Your task to perform on an android device: find which apps use the phone's location Image 0: 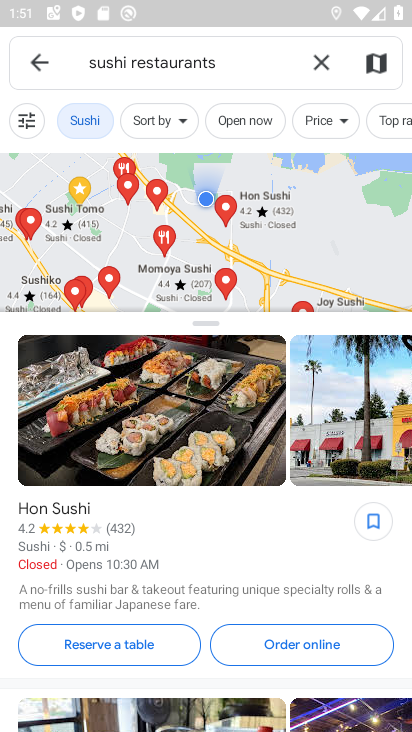
Step 0: press home button
Your task to perform on an android device: find which apps use the phone's location Image 1: 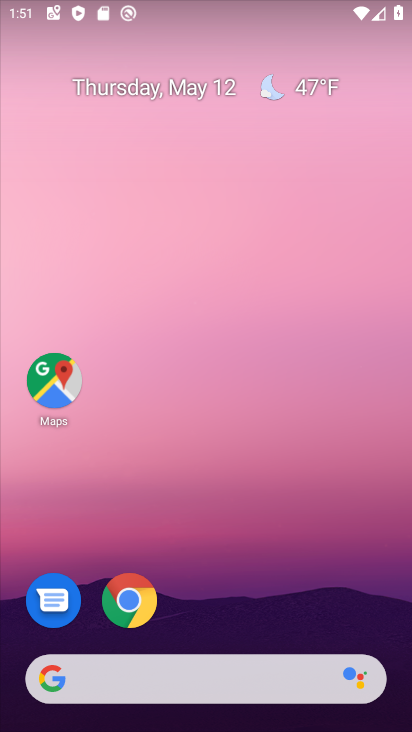
Step 1: drag from (207, 610) to (260, 53)
Your task to perform on an android device: find which apps use the phone's location Image 2: 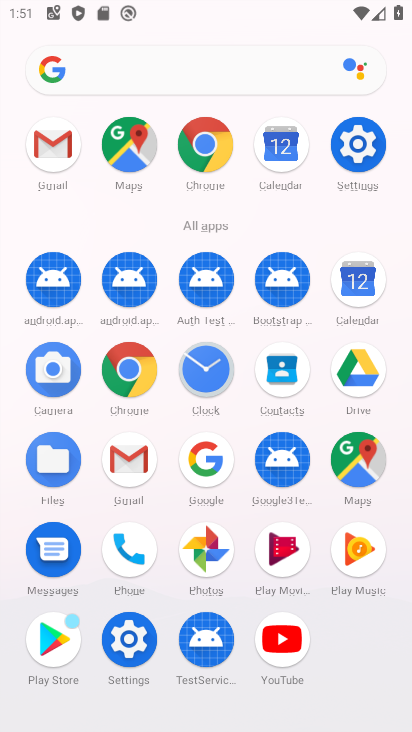
Step 2: click (353, 180)
Your task to perform on an android device: find which apps use the phone's location Image 3: 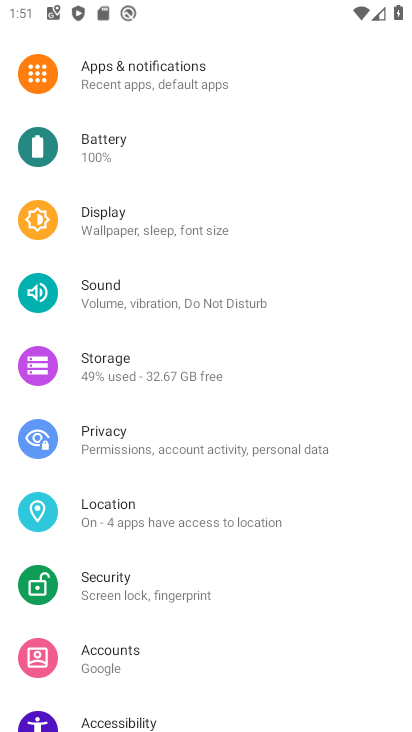
Step 3: drag from (187, 122) to (206, 555)
Your task to perform on an android device: find which apps use the phone's location Image 4: 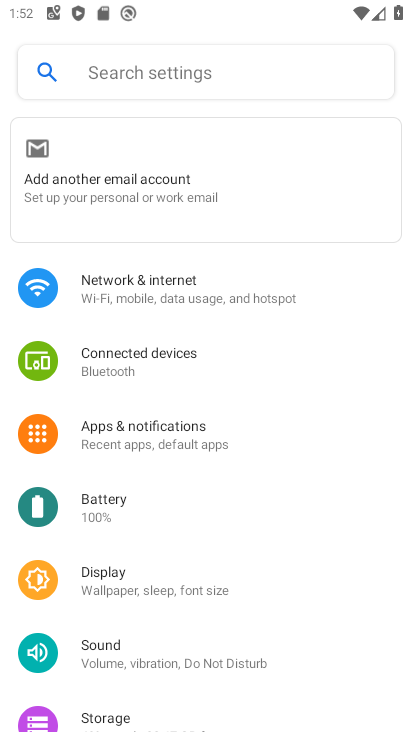
Step 4: drag from (131, 671) to (152, 301)
Your task to perform on an android device: find which apps use the phone's location Image 5: 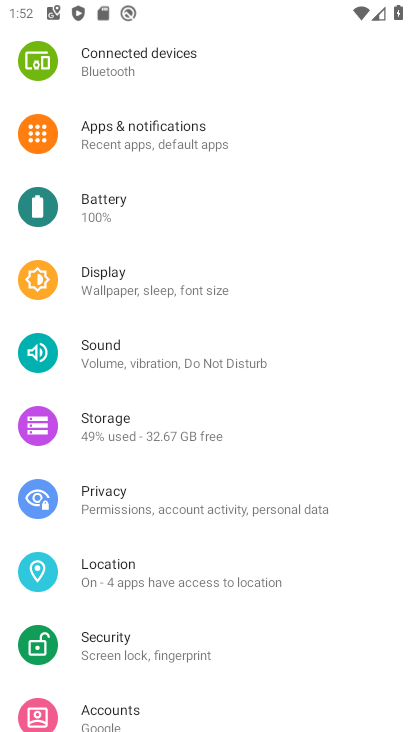
Step 5: click (144, 576)
Your task to perform on an android device: find which apps use the phone's location Image 6: 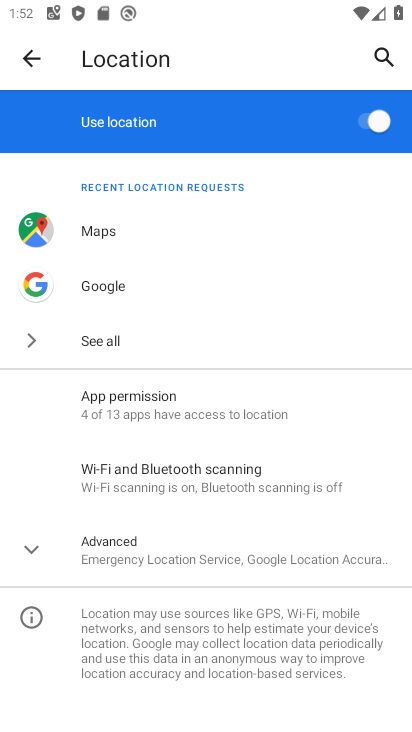
Step 6: click (129, 407)
Your task to perform on an android device: find which apps use the phone's location Image 7: 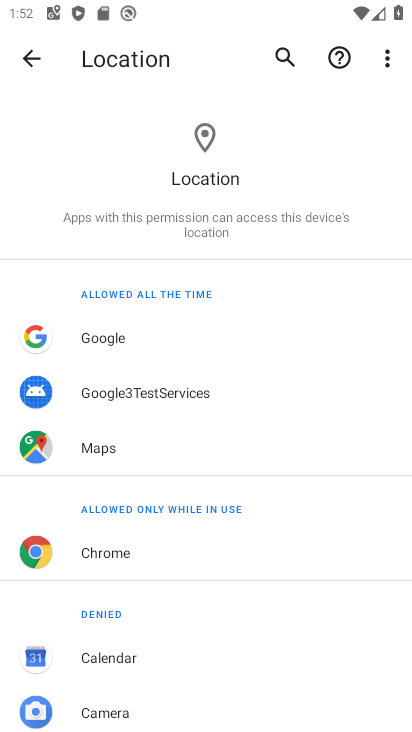
Step 7: task complete